Your task to perform on an android device: Show me productivity apps on the Play Store Image 0: 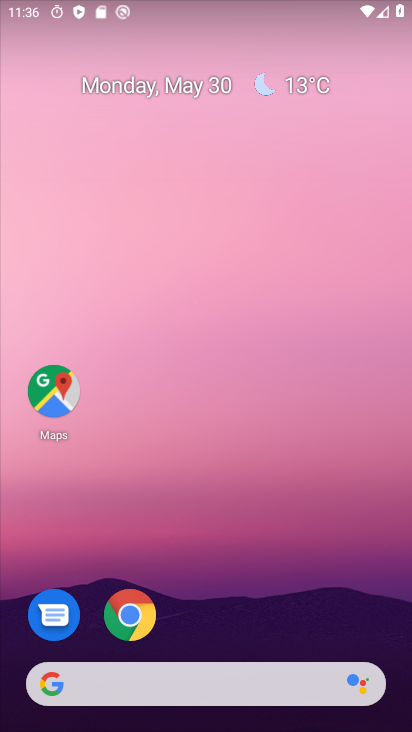
Step 0: drag from (179, 662) to (251, 160)
Your task to perform on an android device: Show me productivity apps on the Play Store Image 1: 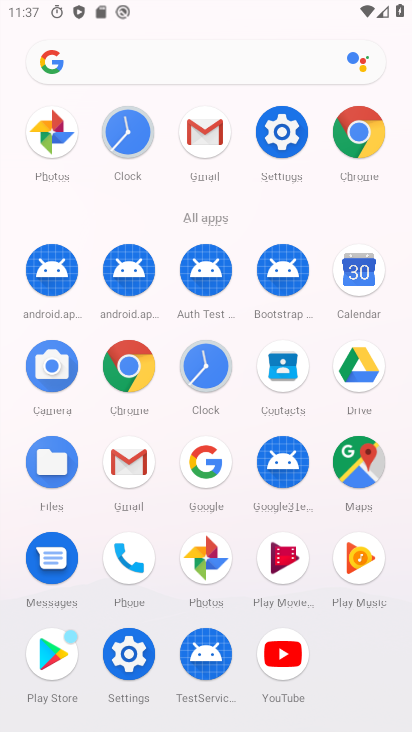
Step 1: click (68, 673)
Your task to perform on an android device: Show me productivity apps on the Play Store Image 2: 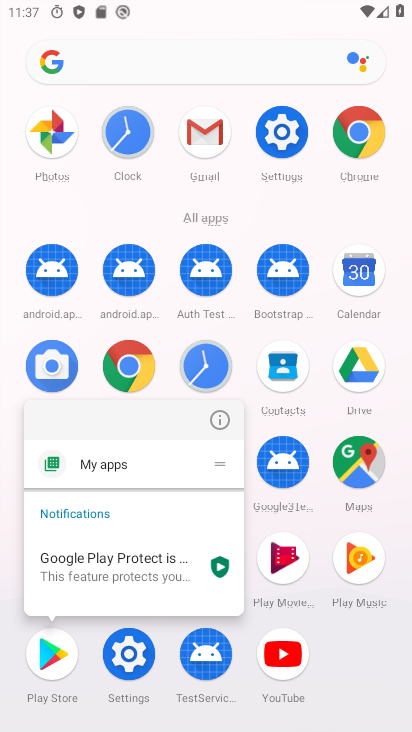
Step 2: click (47, 663)
Your task to perform on an android device: Show me productivity apps on the Play Store Image 3: 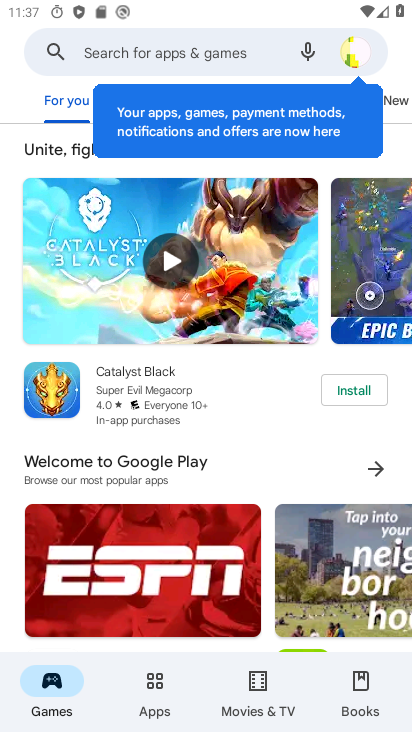
Step 3: click (174, 704)
Your task to perform on an android device: Show me productivity apps on the Play Store Image 4: 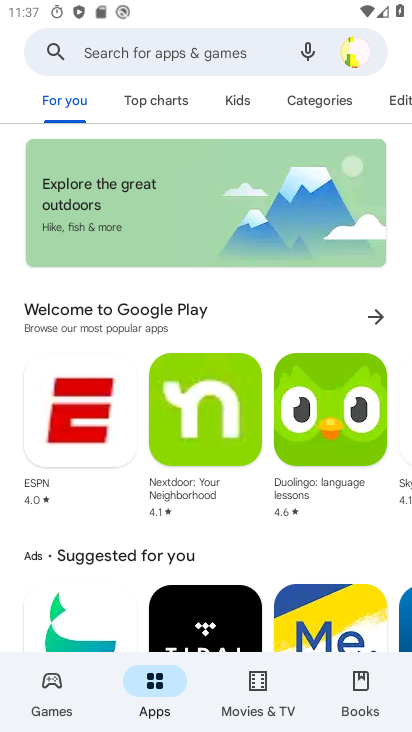
Step 4: click (324, 105)
Your task to perform on an android device: Show me productivity apps on the Play Store Image 5: 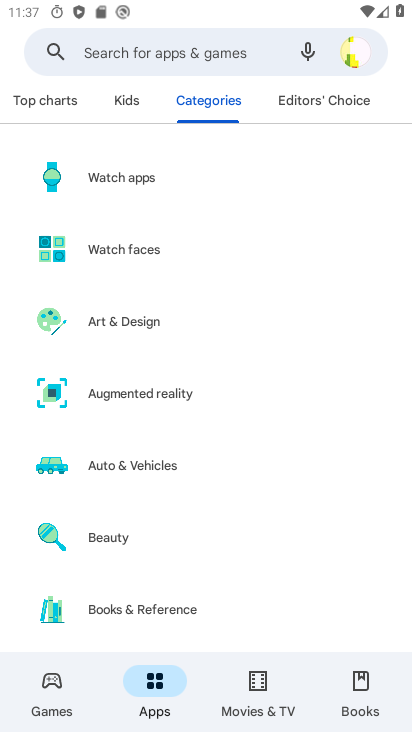
Step 5: drag from (222, 523) to (324, 178)
Your task to perform on an android device: Show me productivity apps on the Play Store Image 6: 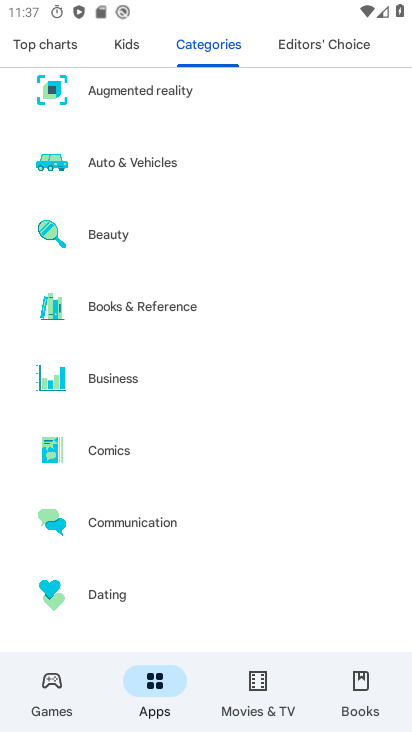
Step 6: drag from (142, 536) to (271, 182)
Your task to perform on an android device: Show me productivity apps on the Play Store Image 7: 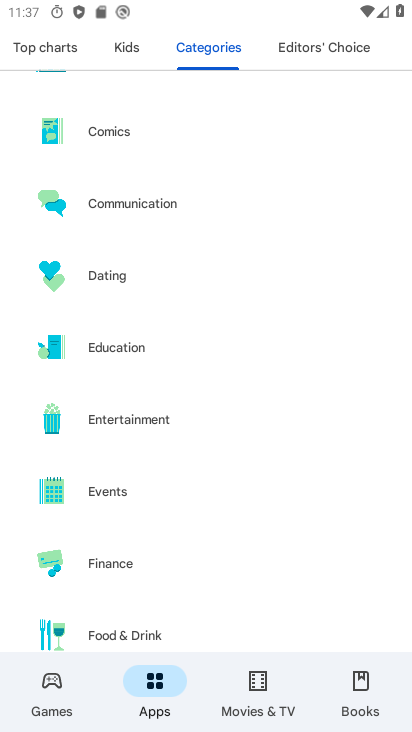
Step 7: drag from (200, 553) to (329, 139)
Your task to perform on an android device: Show me productivity apps on the Play Store Image 8: 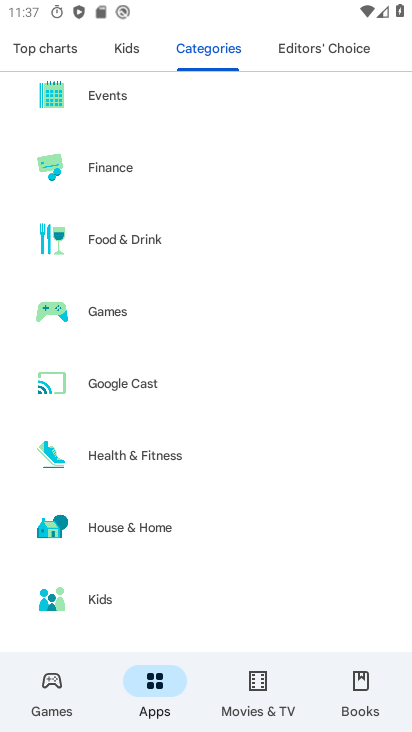
Step 8: drag from (268, 544) to (358, 163)
Your task to perform on an android device: Show me productivity apps on the Play Store Image 9: 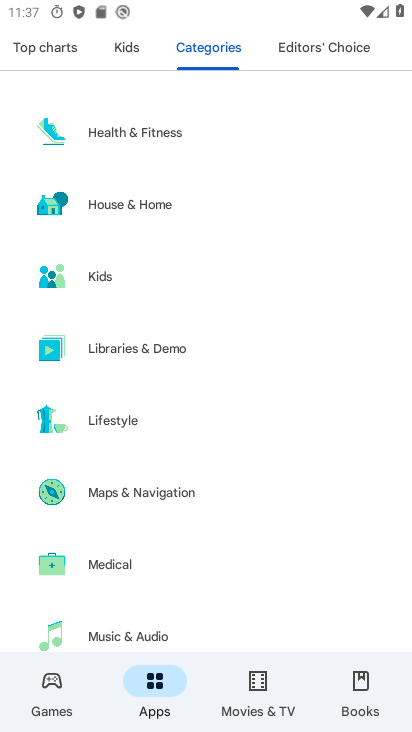
Step 9: drag from (240, 471) to (306, 81)
Your task to perform on an android device: Show me productivity apps on the Play Store Image 10: 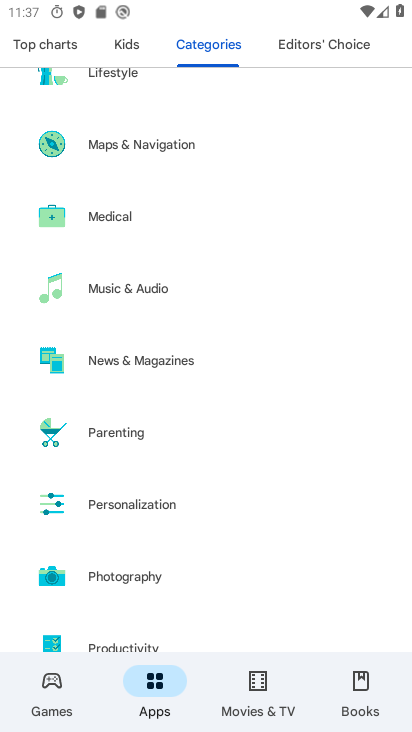
Step 10: drag from (206, 579) to (265, 257)
Your task to perform on an android device: Show me productivity apps on the Play Store Image 11: 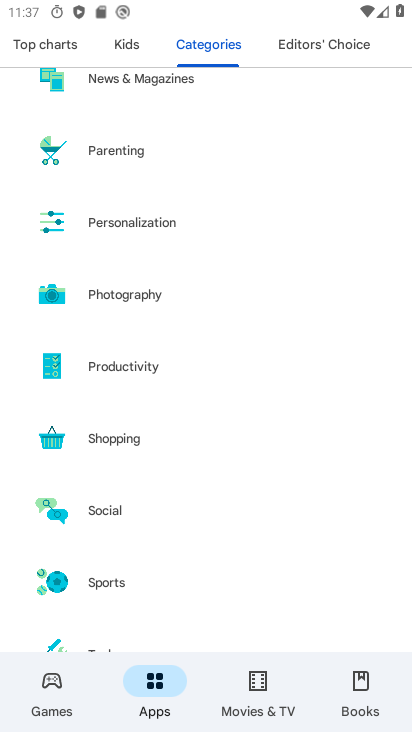
Step 11: click (190, 385)
Your task to perform on an android device: Show me productivity apps on the Play Store Image 12: 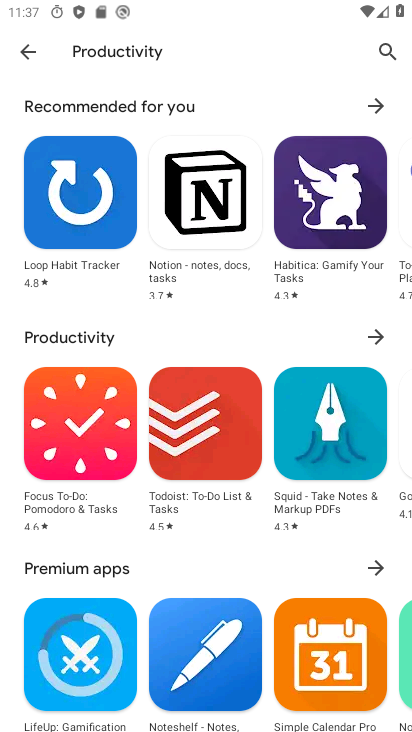
Step 12: task complete